Your task to perform on an android device: turn notification dots off Image 0: 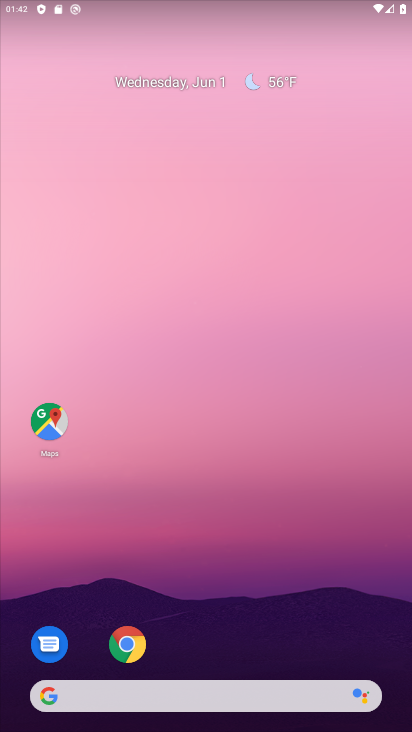
Step 0: drag from (157, 676) to (153, 389)
Your task to perform on an android device: turn notification dots off Image 1: 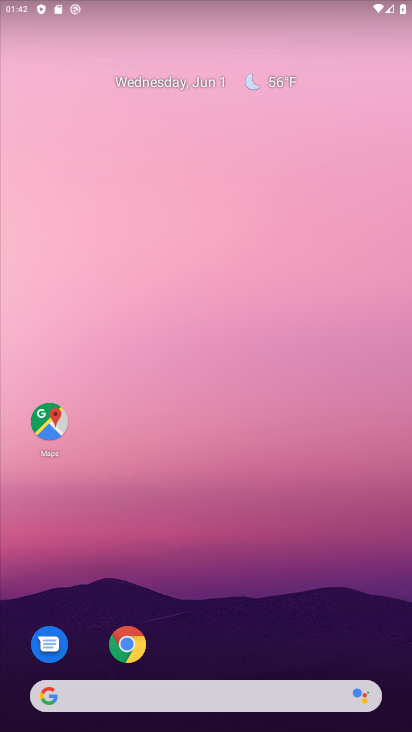
Step 1: drag from (270, 666) to (243, 142)
Your task to perform on an android device: turn notification dots off Image 2: 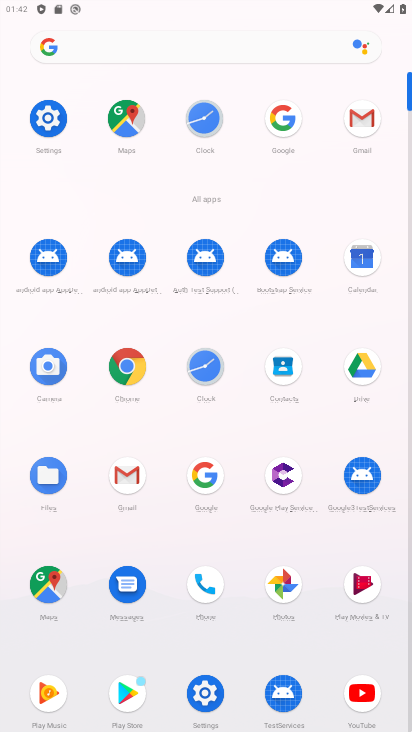
Step 2: click (55, 110)
Your task to perform on an android device: turn notification dots off Image 3: 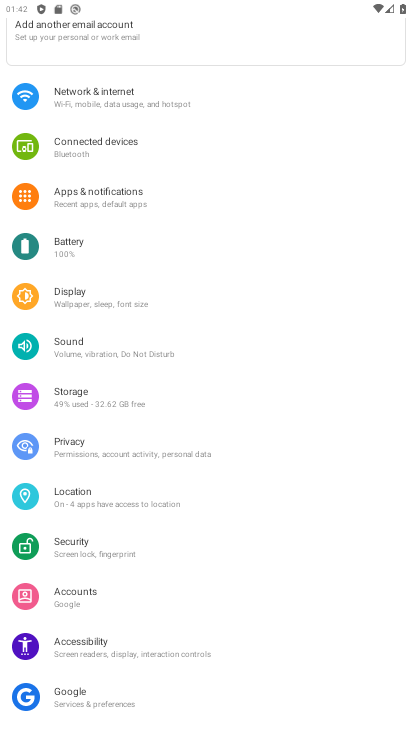
Step 3: click (90, 202)
Your task to perform on an android device: turn notification dots off Image 4: 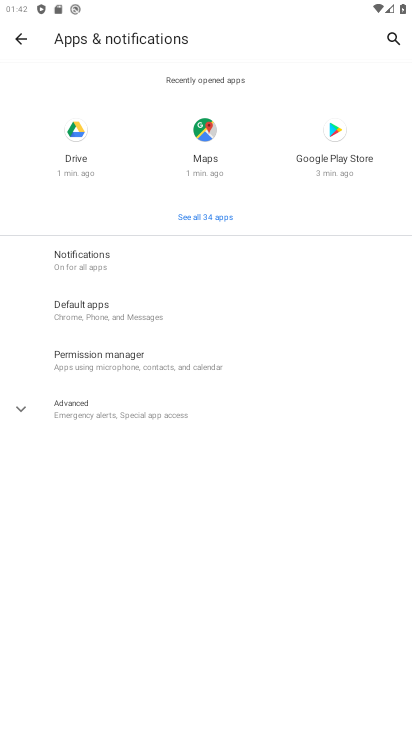
Step 4: click (106, 406)
Your task to perform on an android device: turn notification dots off Image 5: 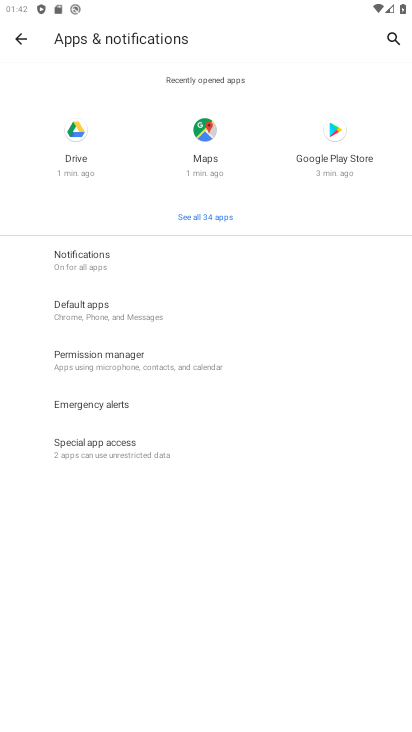
Step 5: click (77, 260)
Your task to perform on an android device: turn notification dots off Image 6: 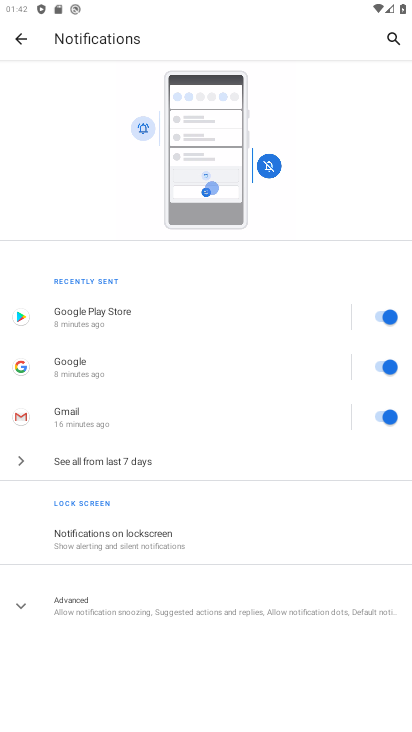
Step 6: click (99, 599)
Your task to perform on an android device: turn notification dots off Image 7: 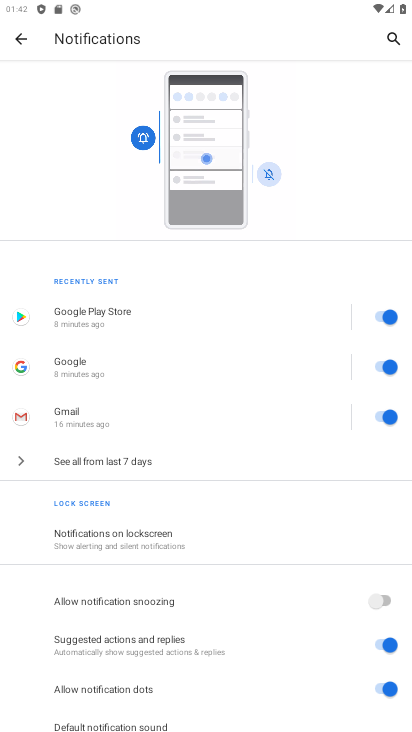
Step 7: drag from (118, 689) to (118, 467)
Your task to perform on an android device: turn notification dots off Image 8: 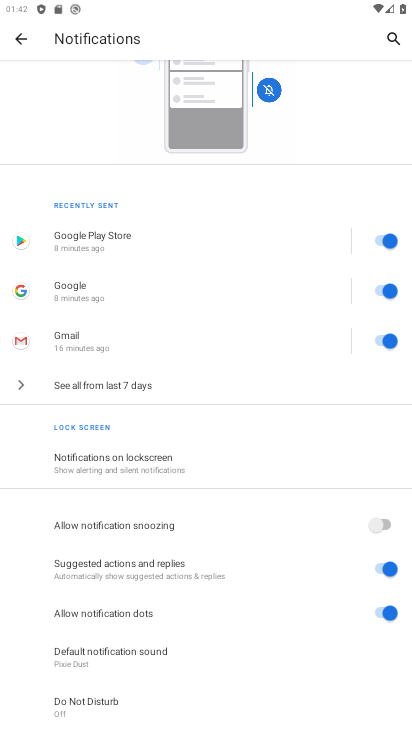
Step 8: click (379, 611)
Your task to perform on an android device: turn notification dots off Image 9: 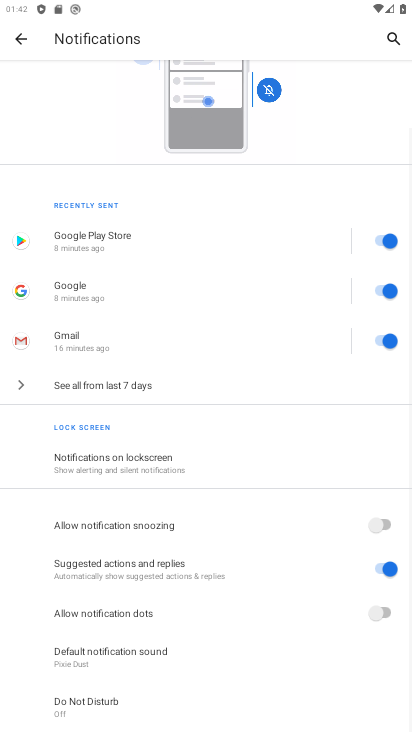
Step 9: task complete